Your task to perform on an android device: open app "LinkedIn" (install if not already installed) Image 0: 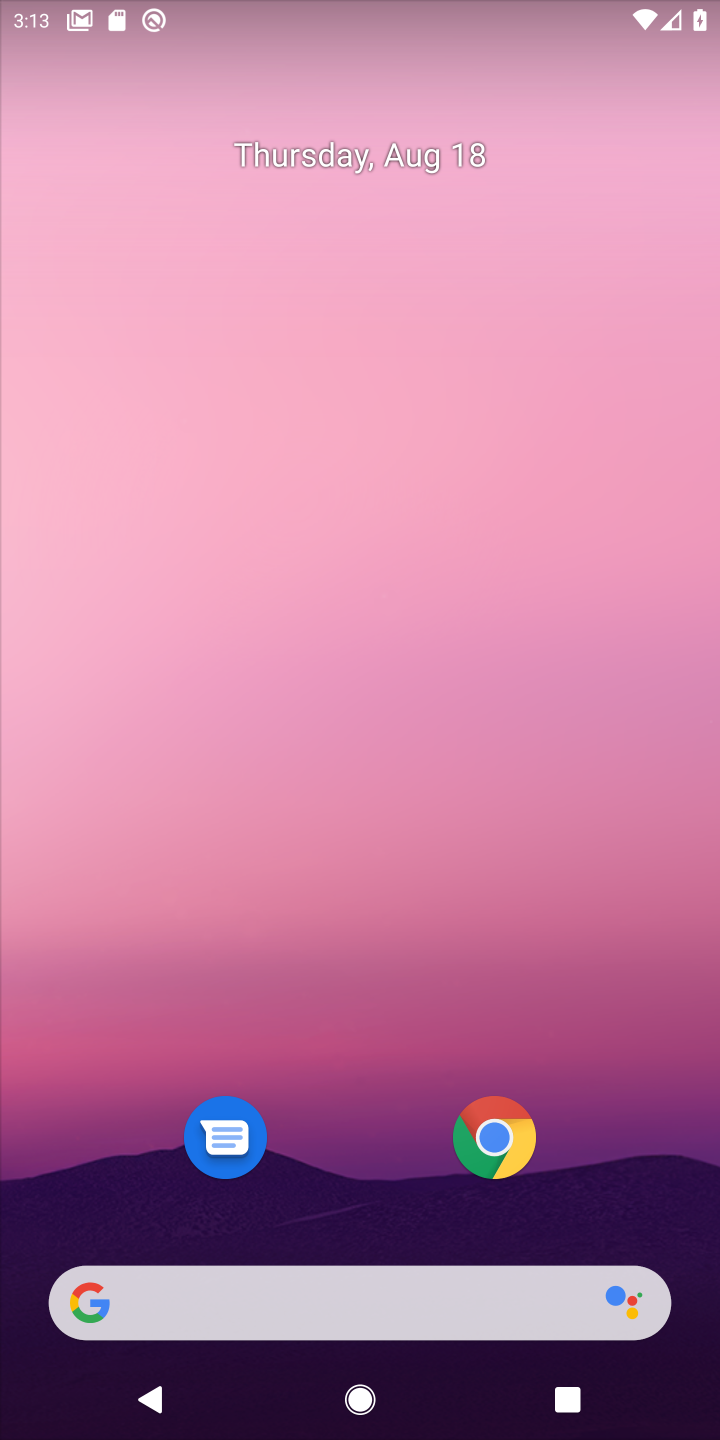
Step 0: click (333, 463)
Your task to perform on an android device: open app "LinkedIn" (install if not already installed) Image 1: 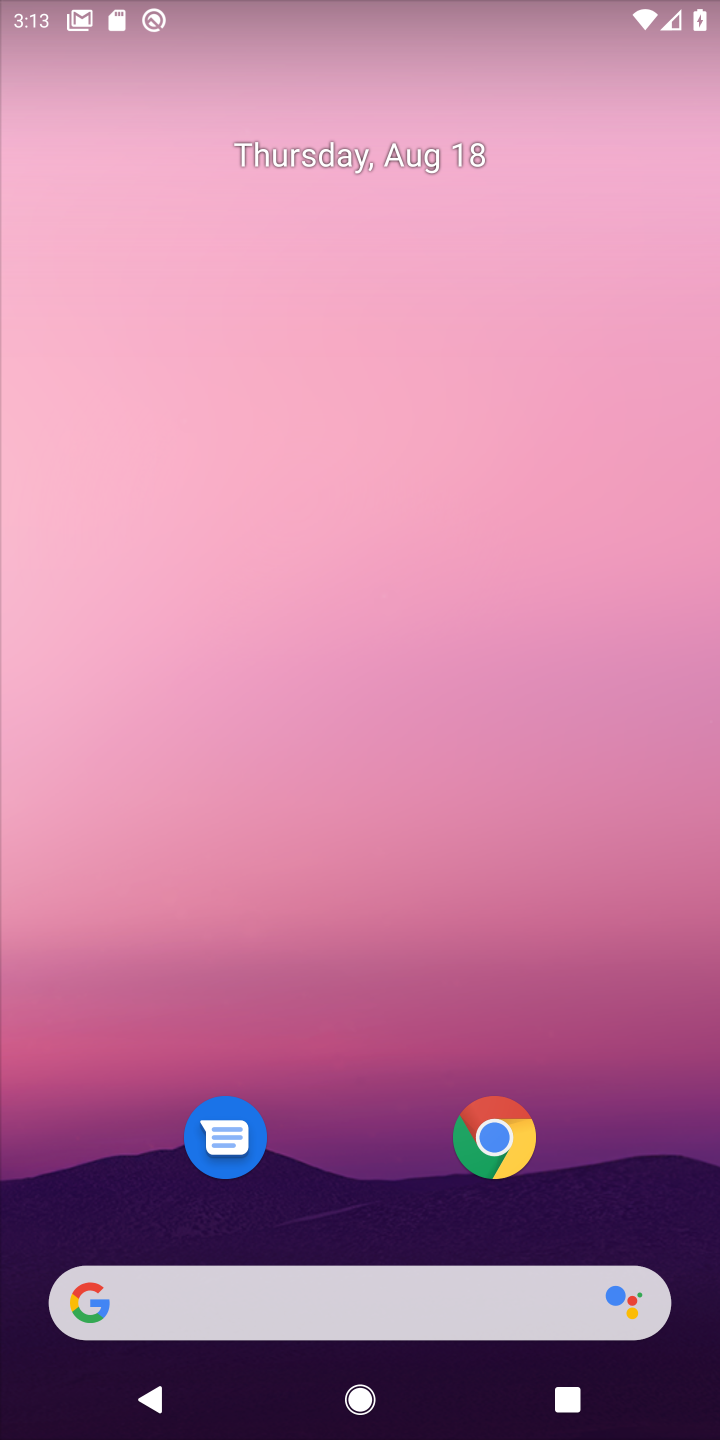
Step 1: drag from (365, 1210) to (325, 373)
Your task to perform on an android device: open app "LinkedIn" (install if not already installed) Image 2: 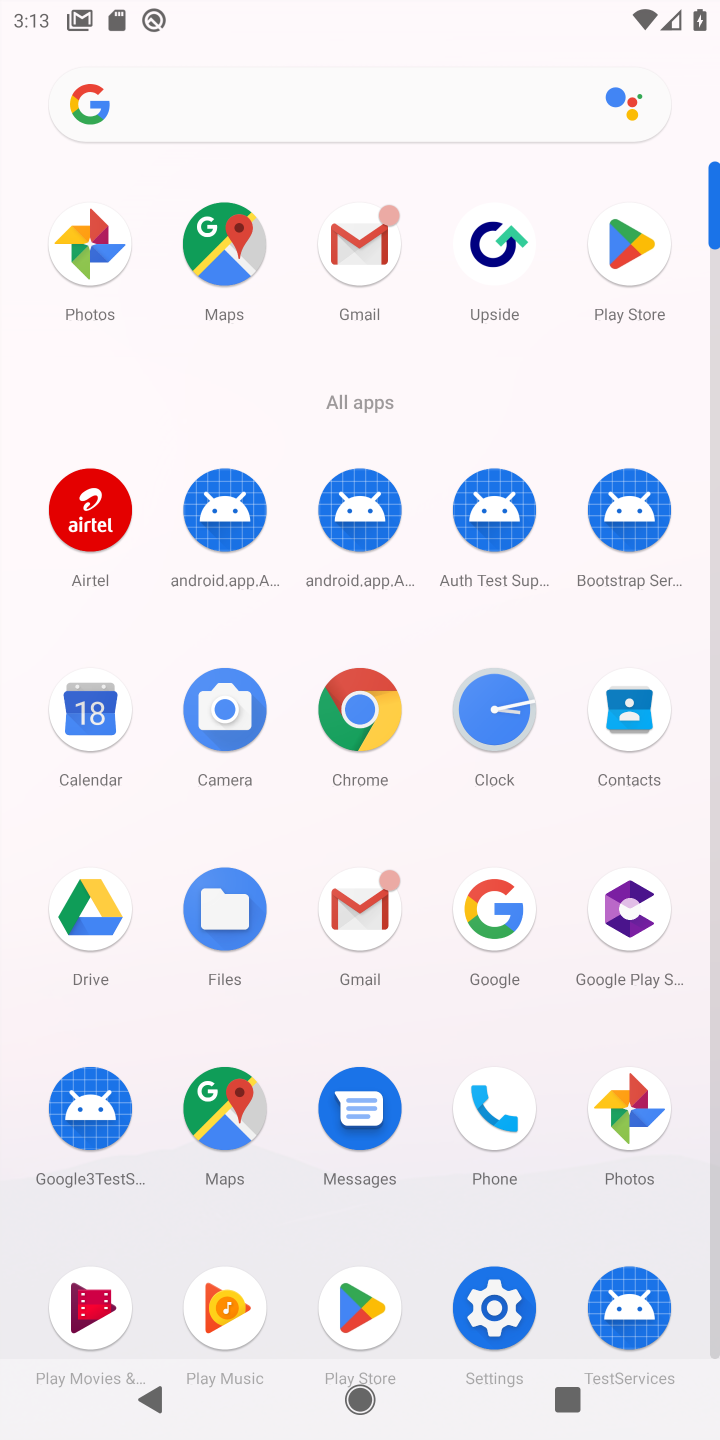
Step 2: click (629, 248)
Your task to perform on an android device: open app "LinkedIn" (install if not already installed) Image 3: 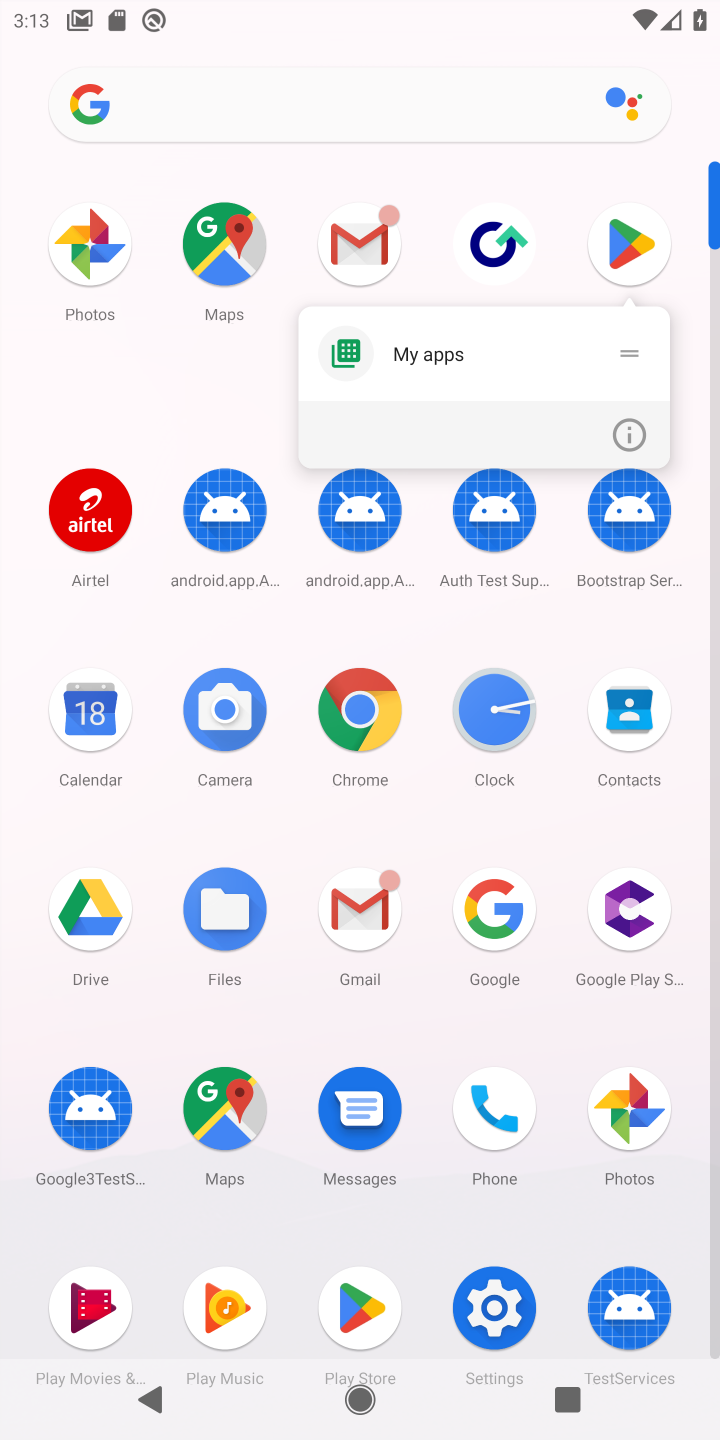
Step 3: click (613, 248)
Your task to perform on an android device: open app "LinkedIn" (install if not already installed) Image 4: 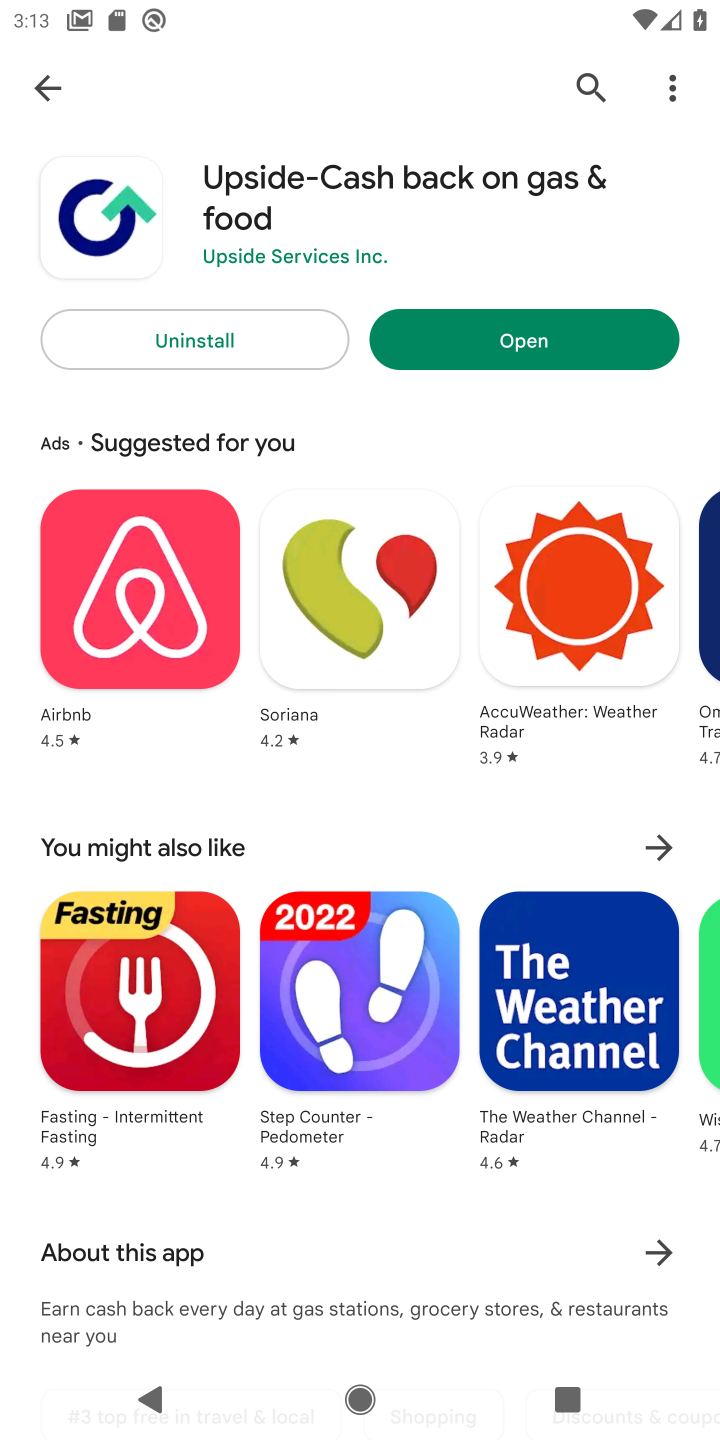
Step 4: click (46, 88)
Your task to perform on an android device: open app "LinkedIn" (install if not already installed) Image 5: 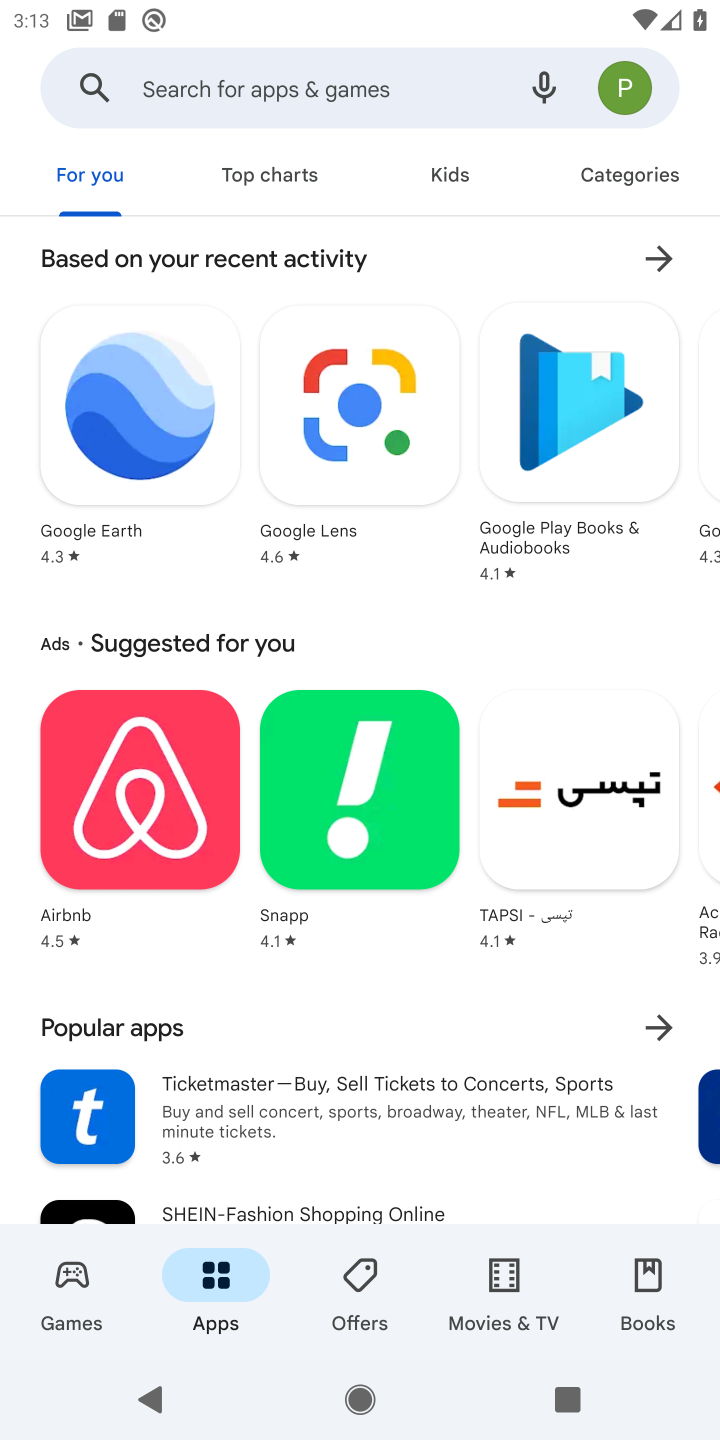
Step 5: click (309, 75)
Your task to perform on an android device: open app "LinkedIn" (install if not already installed) Image 6: 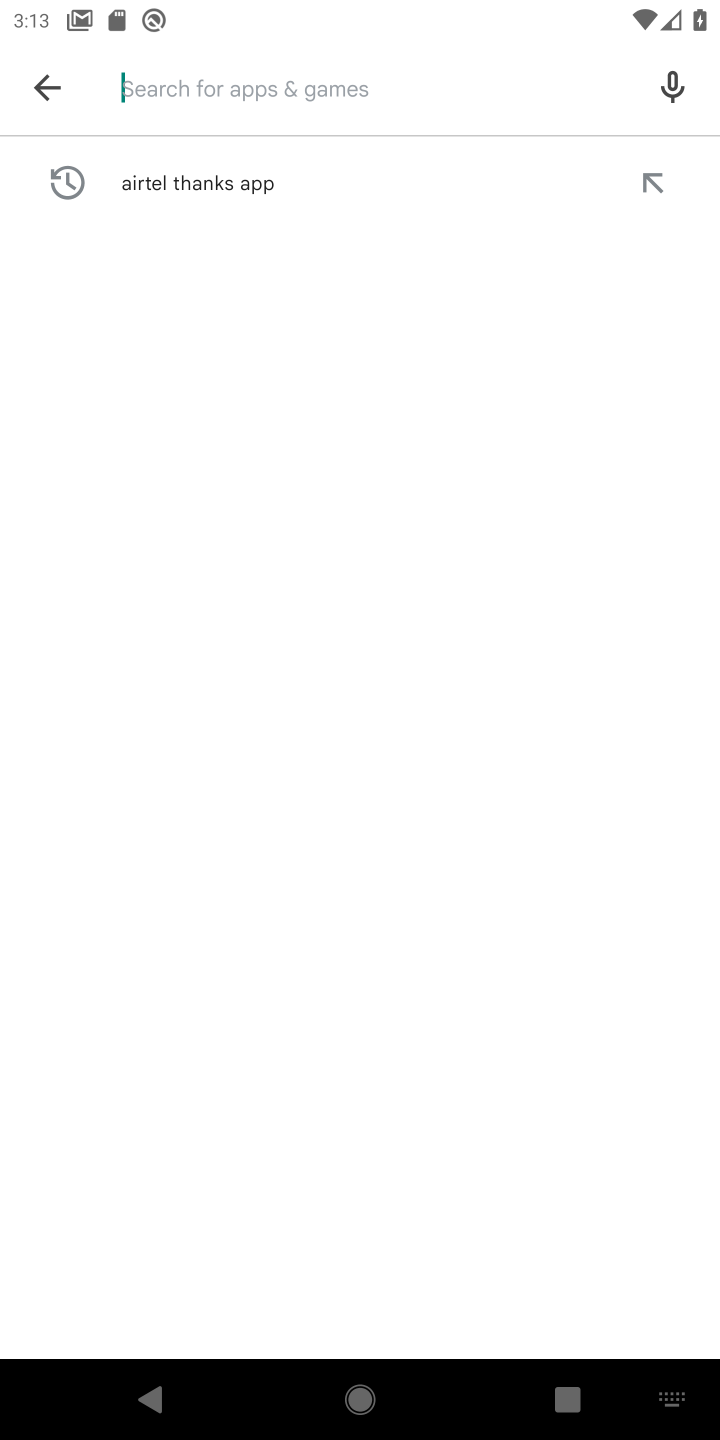
Step 6: type "LinkedIn"
Your task to perform on an android device: open app "LinkedIn" (install if not already installed) Image 7: 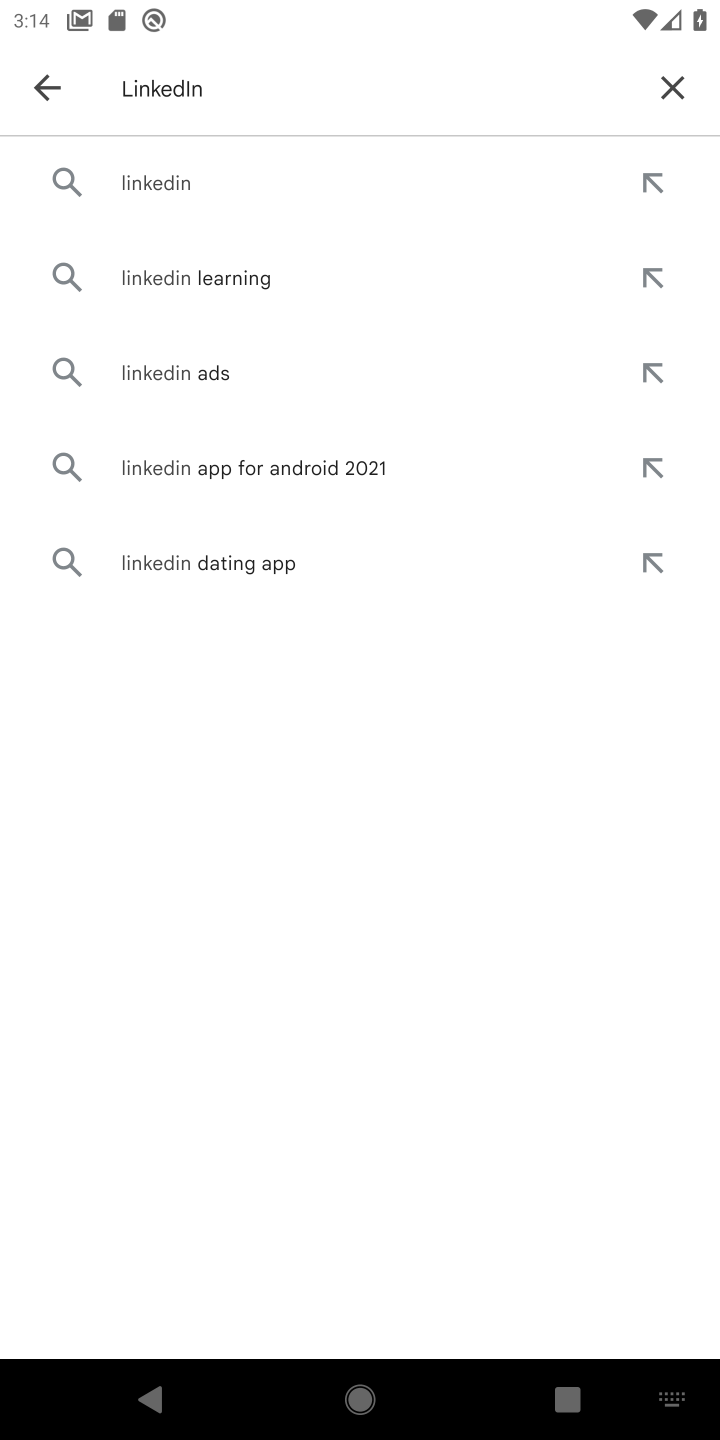
Step 7: click (190, 173)
Your task to perform on an android device: open app "LinkedIn" (install if not already installed) Image 8: 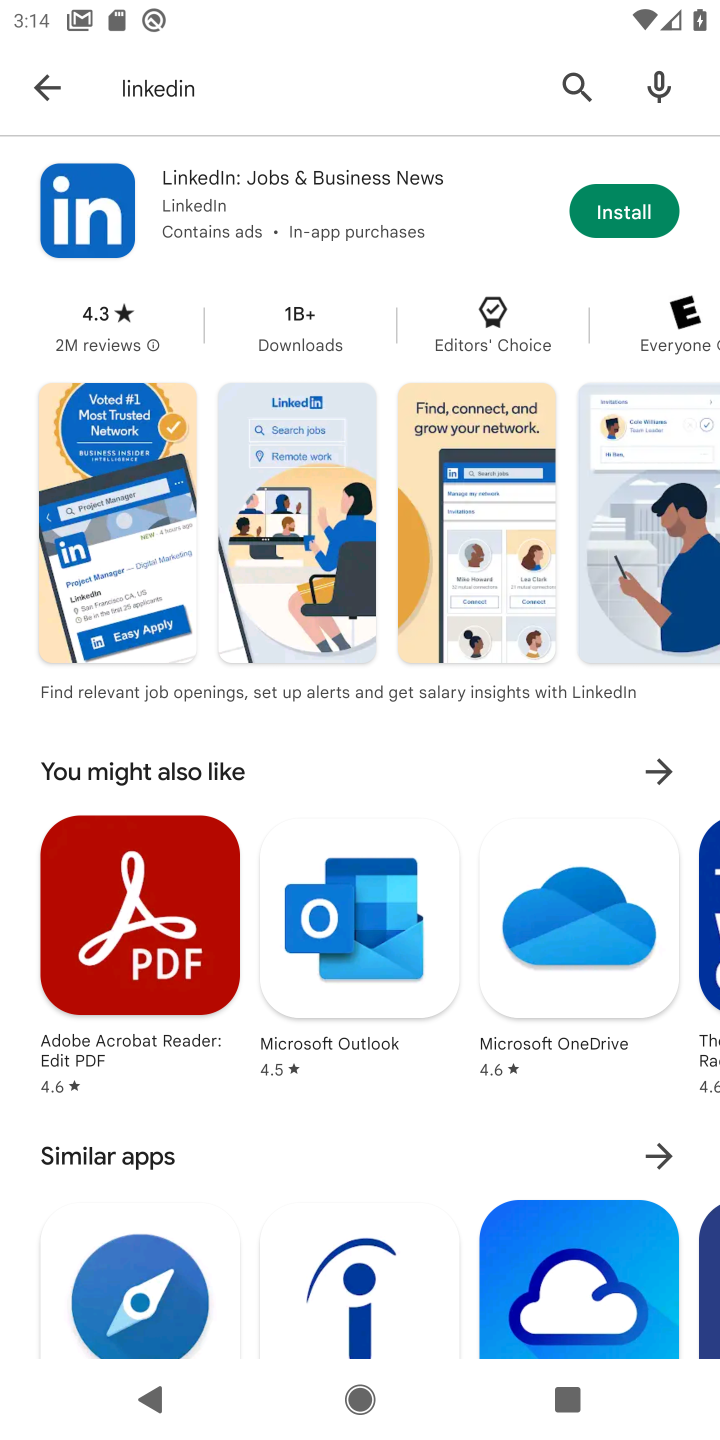
Step 8: click (628, 203)
Your task to perform on an android device: open app "LinkedIn" (install if not already installed) Image 9: 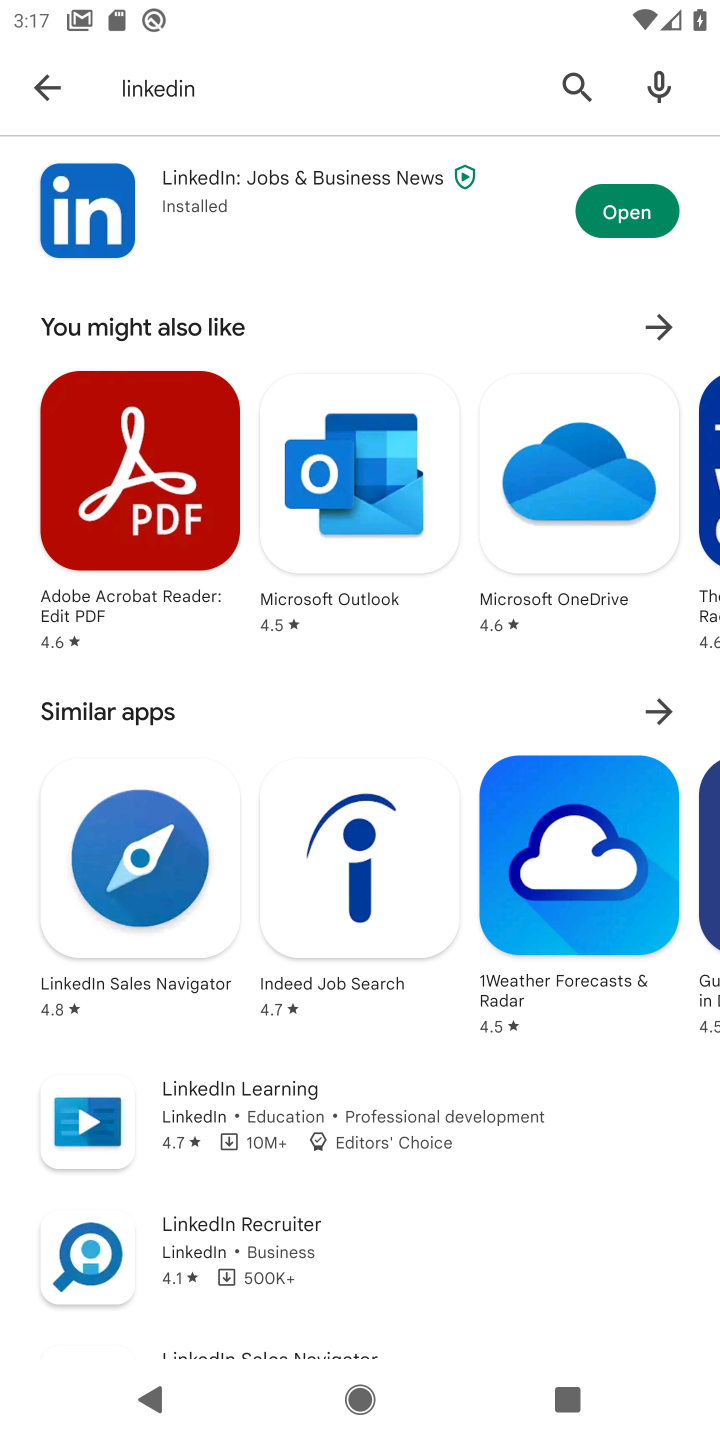
Step 9: click (634, 202)
Your task to perform on an android device: open app "LinkedIn" (install if not already installed) Image 10: 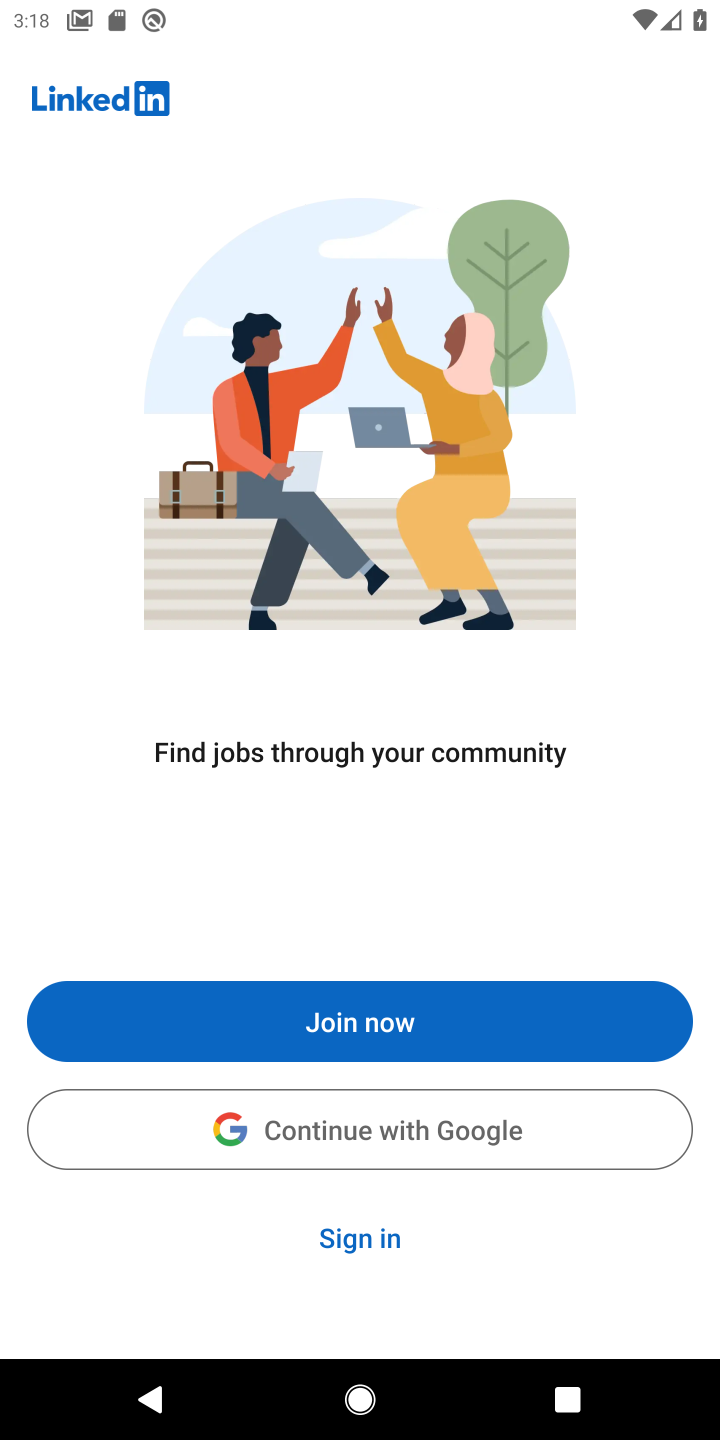
Step 10: task complete